Your task to perform on an android device: Open Google Chrome and click the shortcut for Amazon.com Image 0: 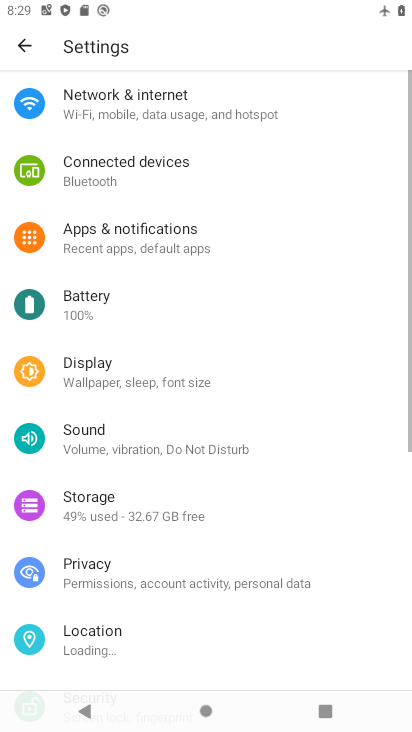
Step 0: press home button
Your task to perform on an android device: Open Google Chrome and click the shortcut for Amazon.com Image 1: 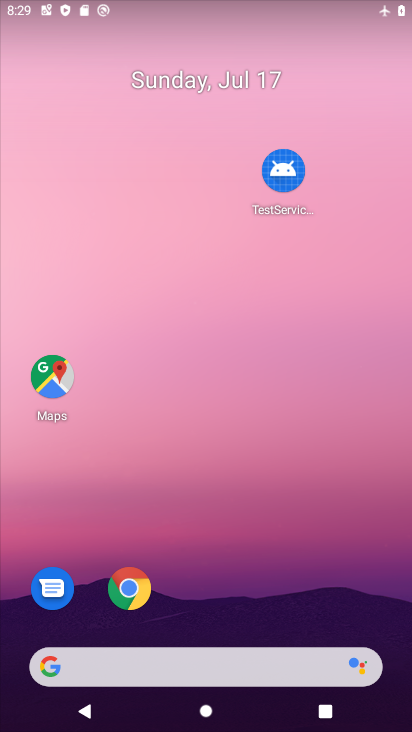
Step 1: drag from (263, 659) to (264, 237)
Your task to perform on an android device: Open Google Chrome and click the shortcut for Amazon.com Image 2: 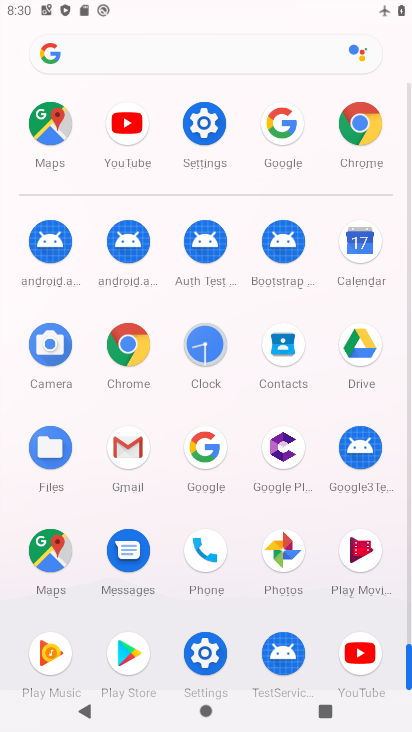
Step 2: click (358, 159)
Your task to perform on an android device: Open Google Chrome and click the shortcut for Amazon.com Image 3: 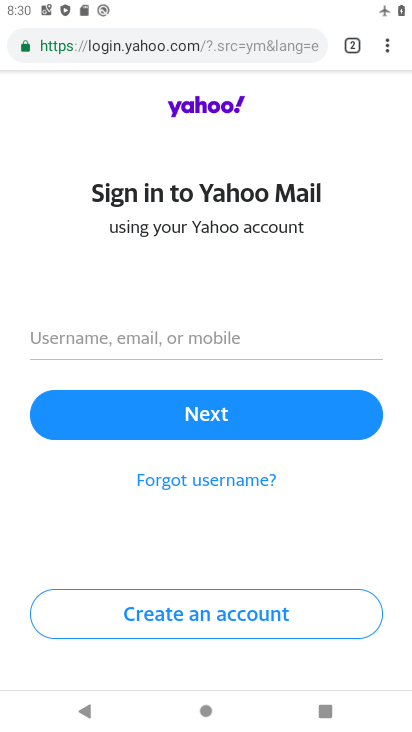
Step 3: drag from (348, 48) to (342, 366)
Your task to perform on an android device: Open Google Chrome and click the shortcut for Amazon.com Image 4: 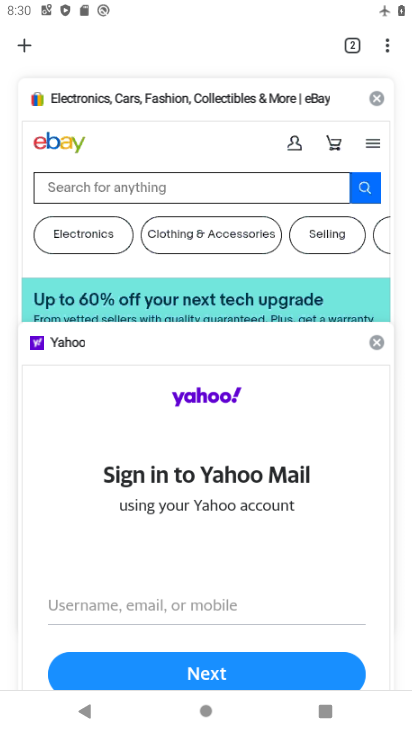
Step 4: click (22, 40)
Your task to perform on an android device: Open Google Chrome and click the shortcut for Amazon.com Image 5: 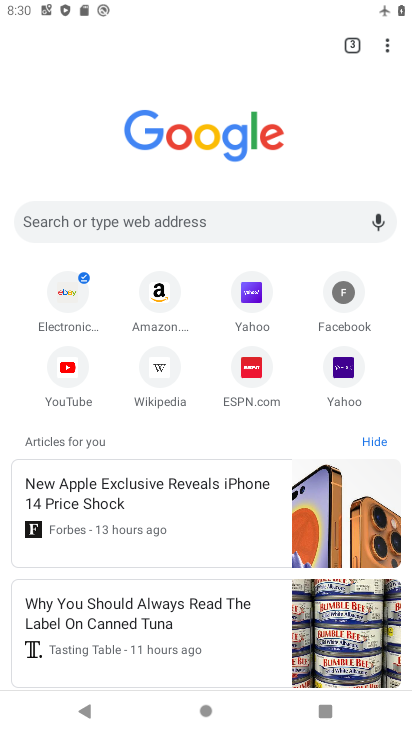
Step 5: click (168, 316)
Your task to perform on an android device: Open Google Chrome and click the shortcut for Amazon.com Image 6: 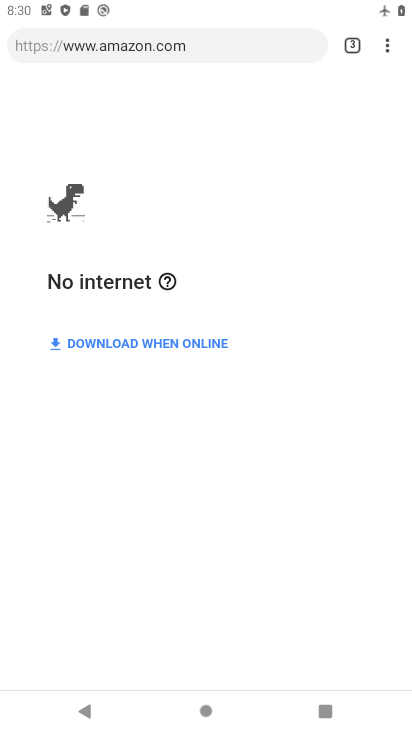
Step 6: task complete